Your task to perform on an android device: toggle notification dots Image 0: 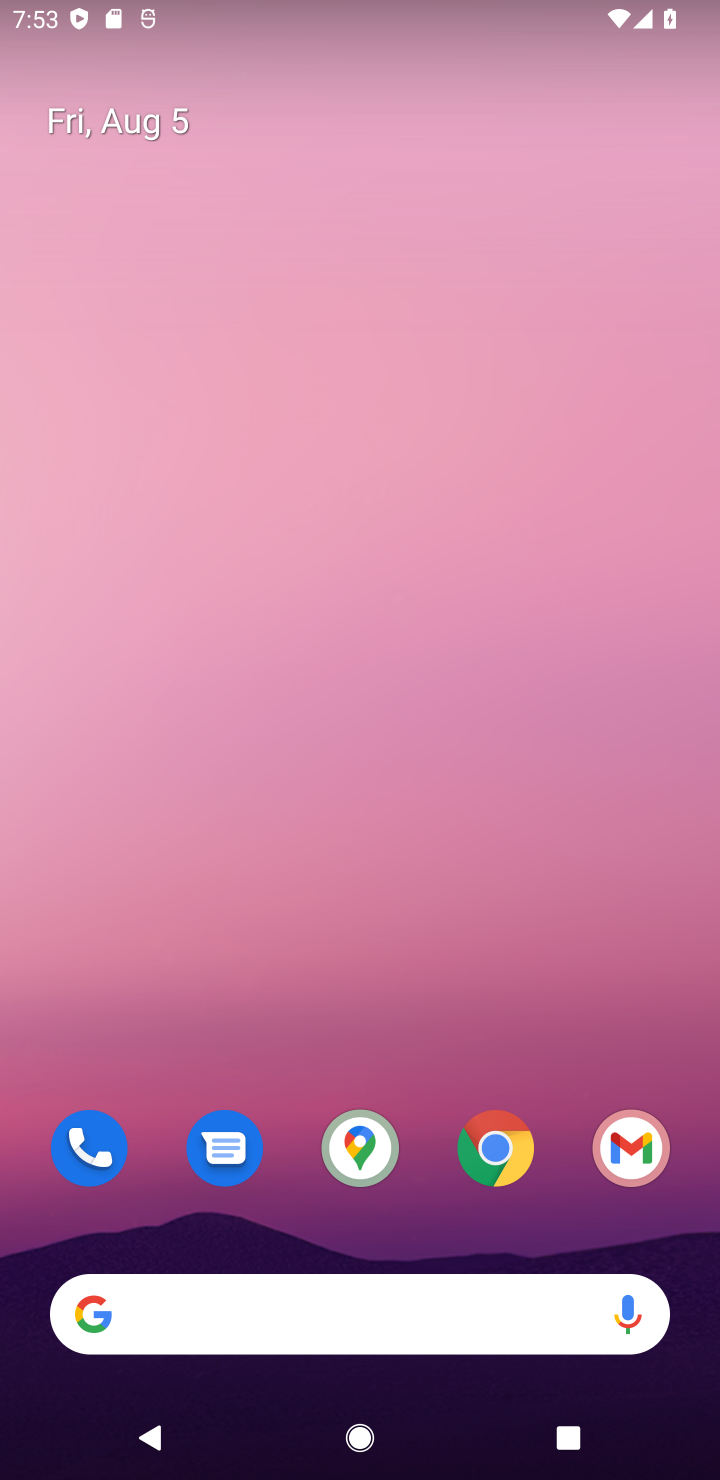
Step 0: drag from (448, 1224) to (349, 55)
Your task to perform on an android device: toggle notification dots Image 1: 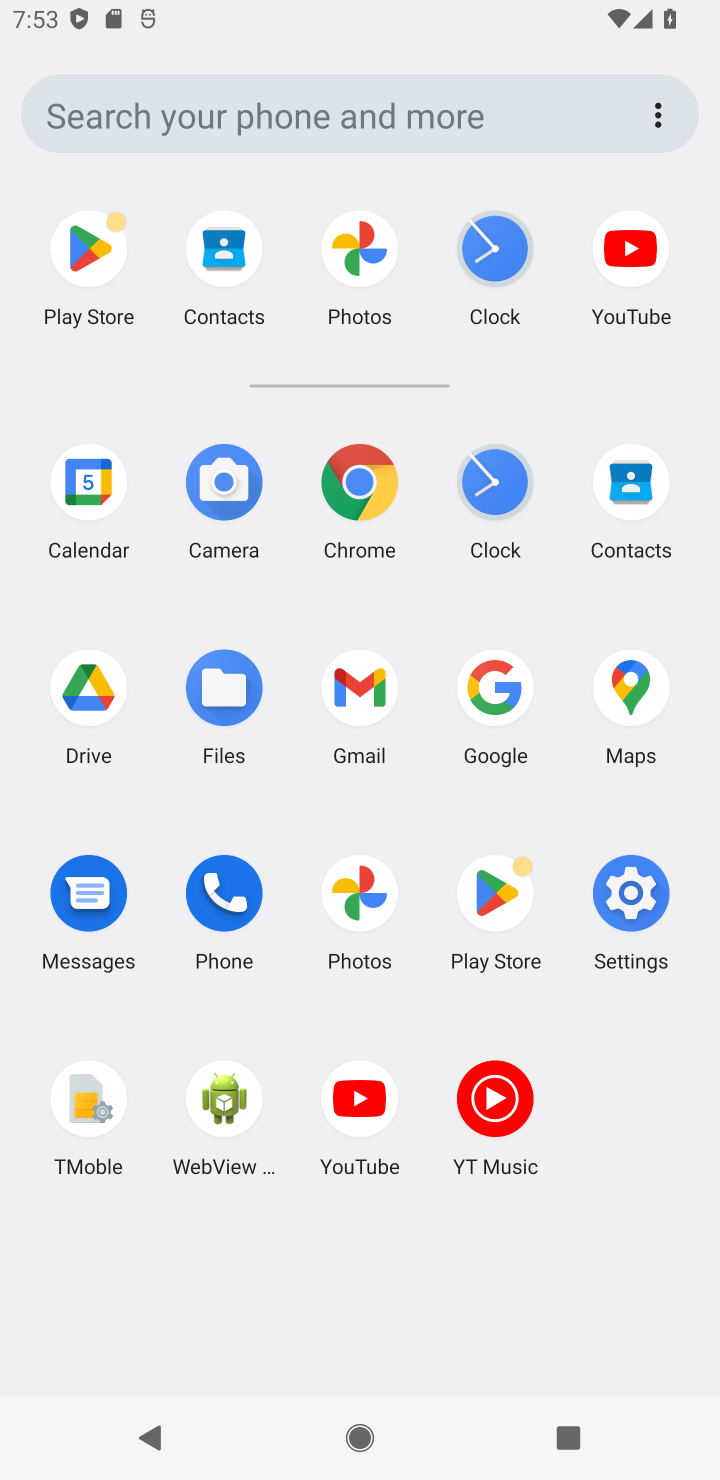
Step 1: click (603, 902)
Your task to perform on an android device: toggle notification dots Image 2: 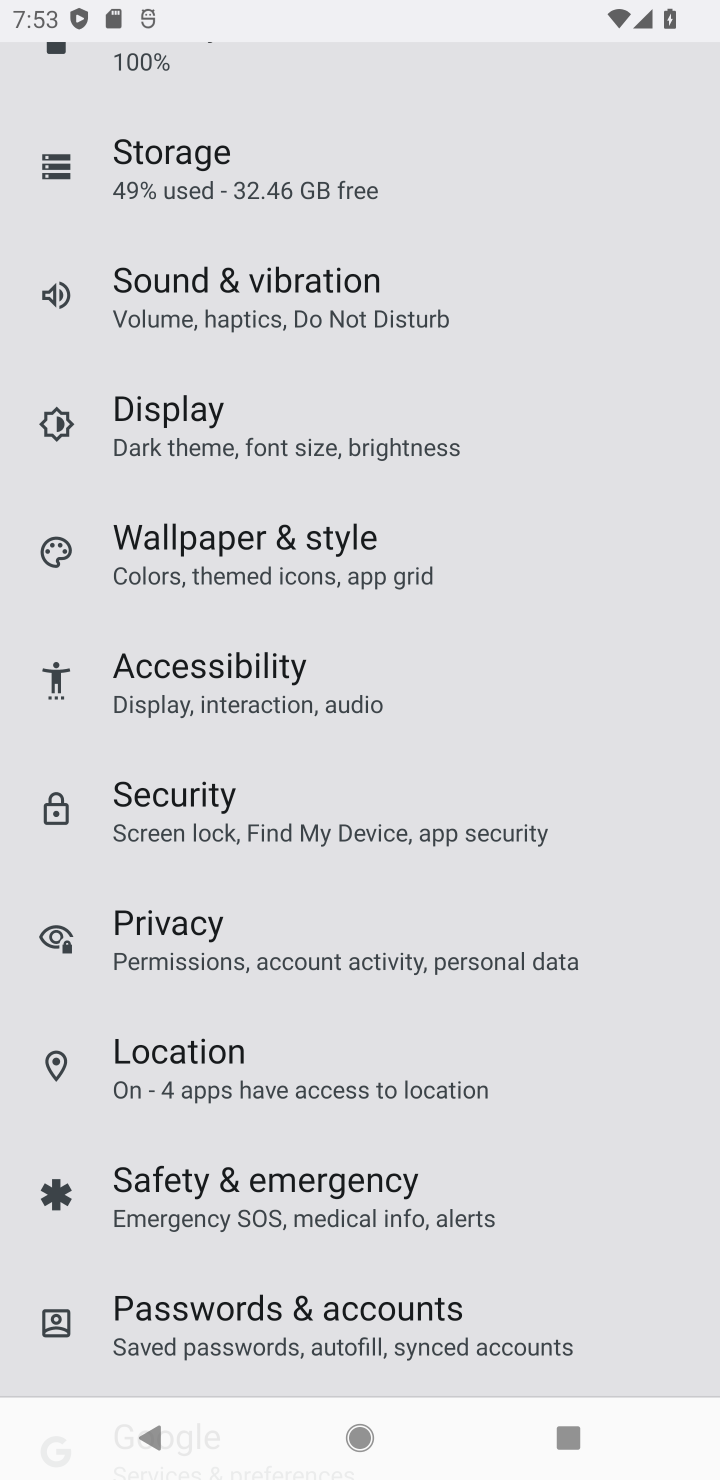
Step 2: drag from (282, 338) to (343, 911)
Your task to perform on an android device: toggle notification dots Image 3: 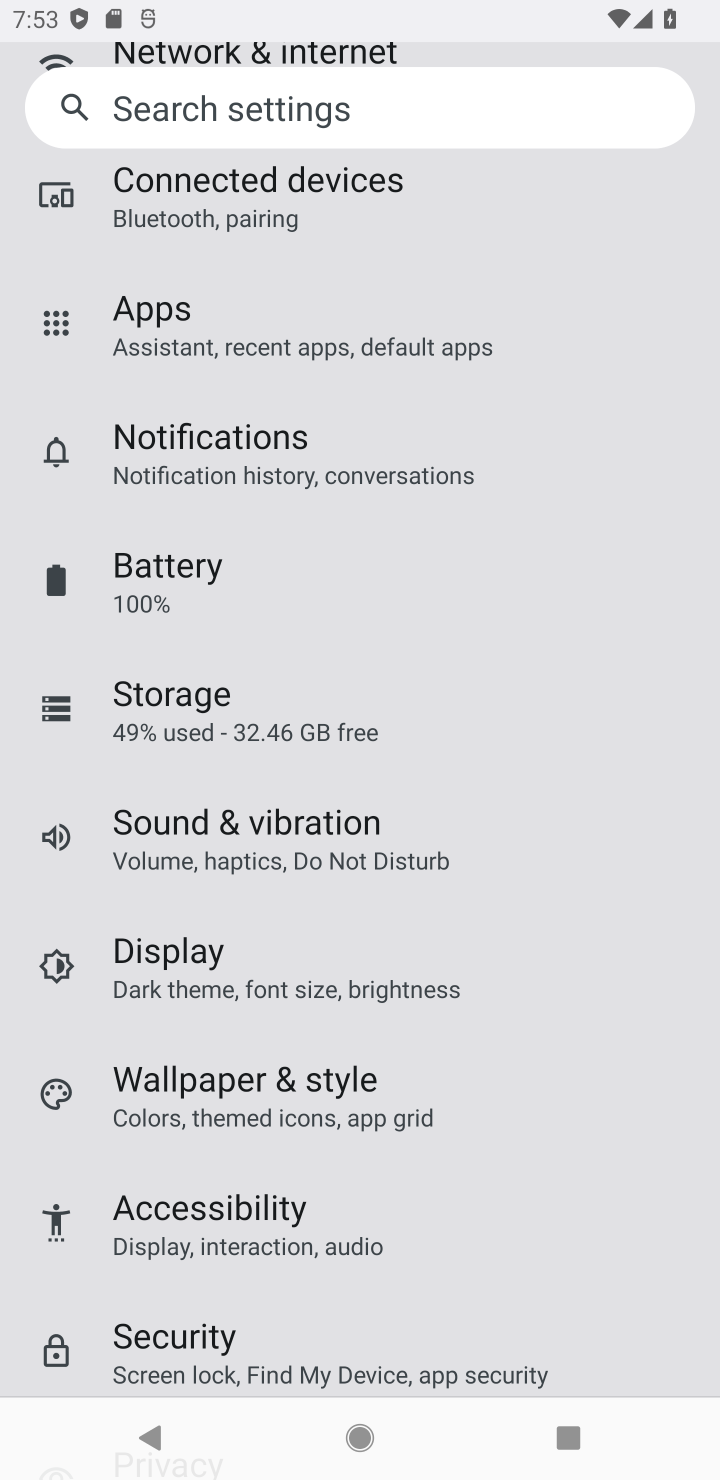
Step 3: click (346, 455)
Your task to perform on an android device: toggle notification dots Image 4: 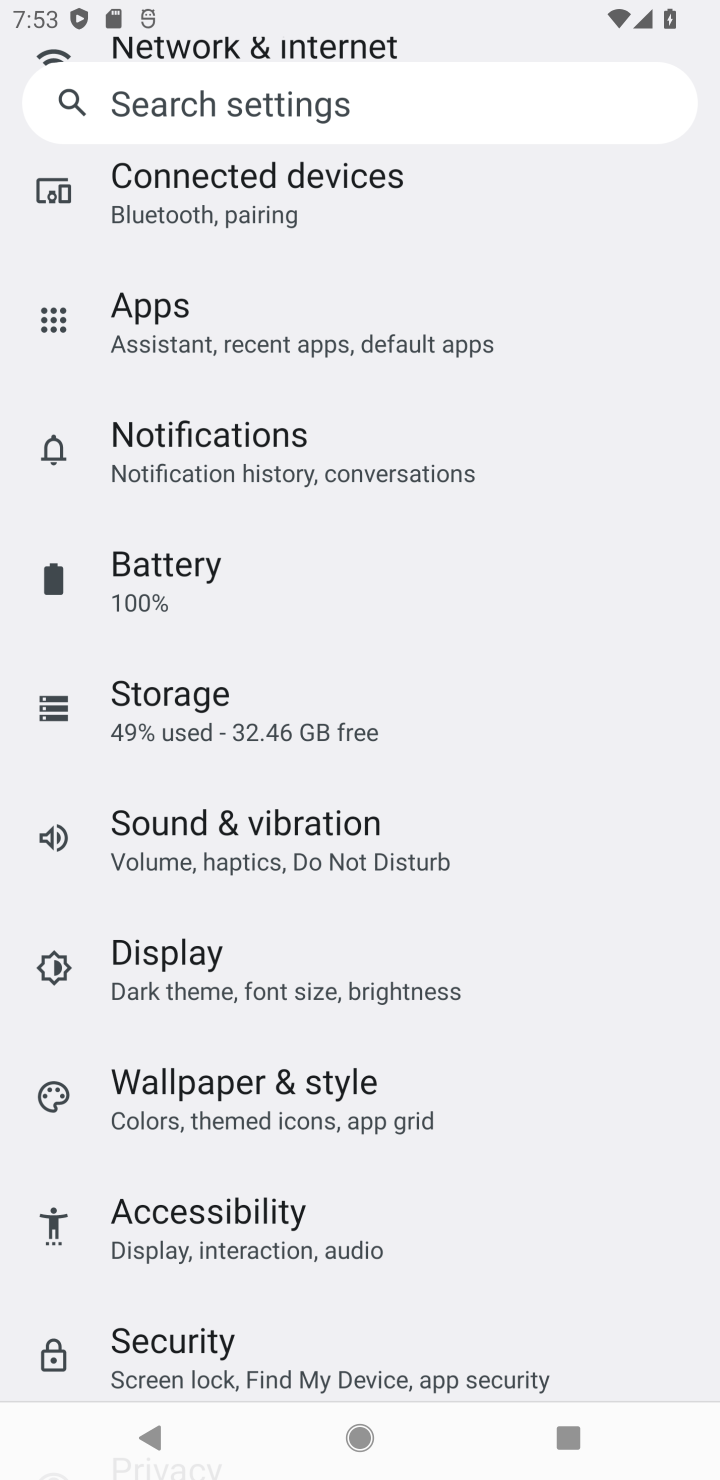
Step 4: task complete